Your task to perform on an android device: Go to display settings Image 0: 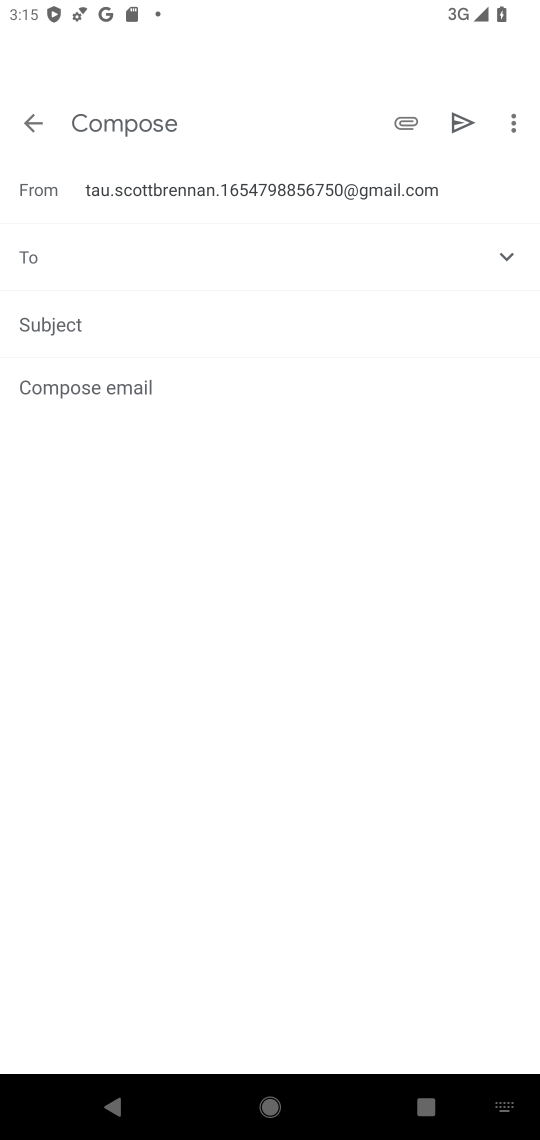
Step 0: press home button
Your task to perform on an android device: Go to display settings Image 1: 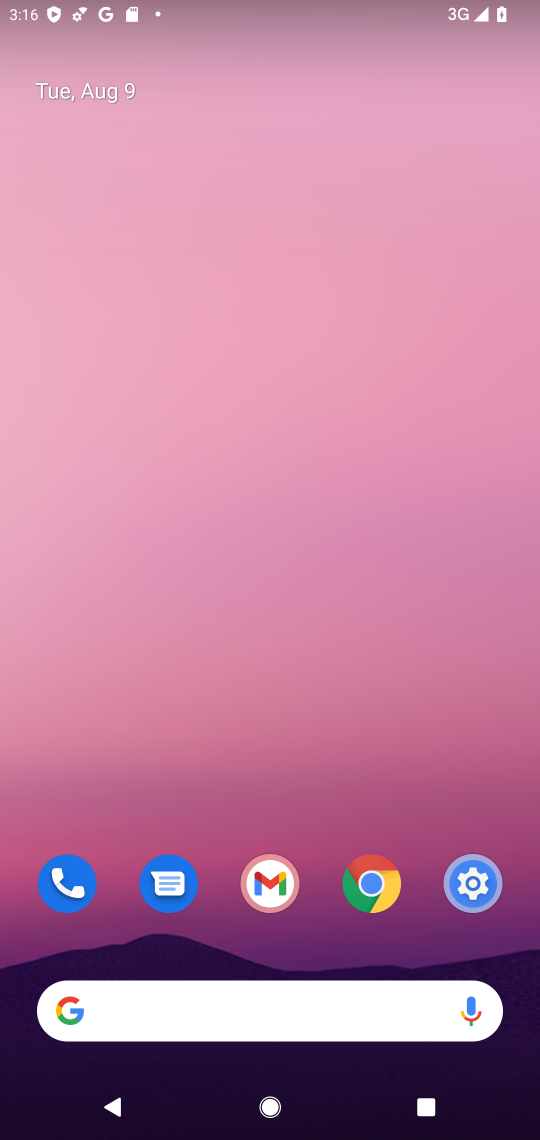
Step 1: click (470, 883)
Your task to perform on an android device: Go to display settings Image 2: 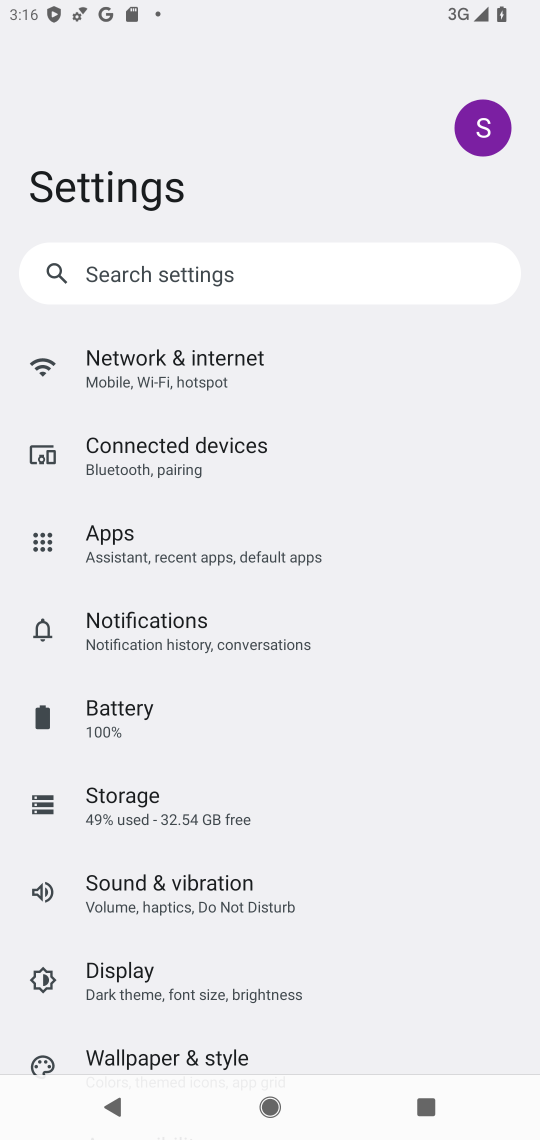
Step 2: drag from (363, 949) to (360, 516)
Your task to perform on an android device: Go to display settings Image 3: 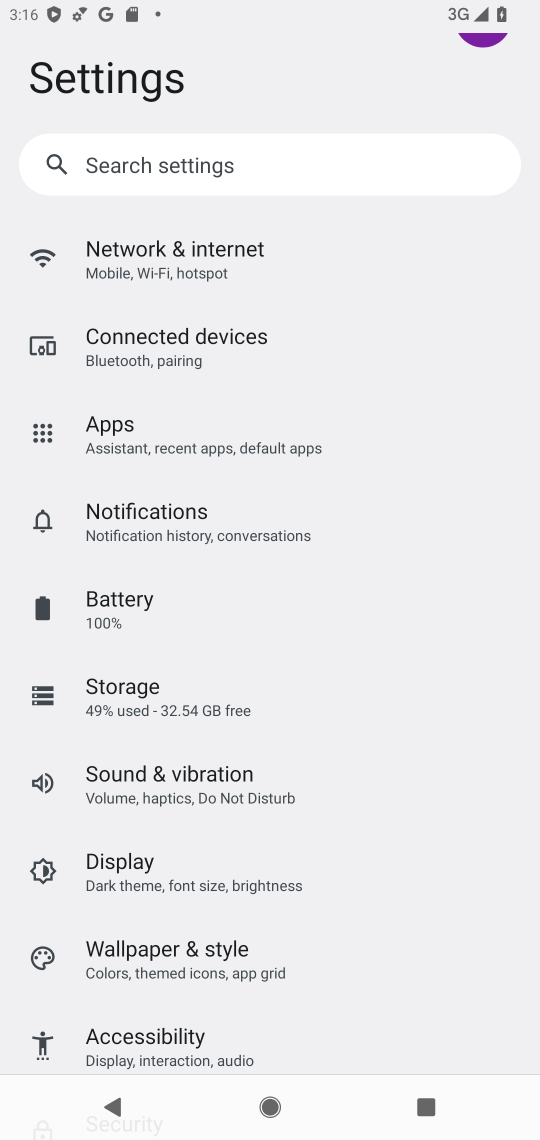
Step 3: click (115, 864)
Your task to perform on an android device: Go to display settings Image 4: 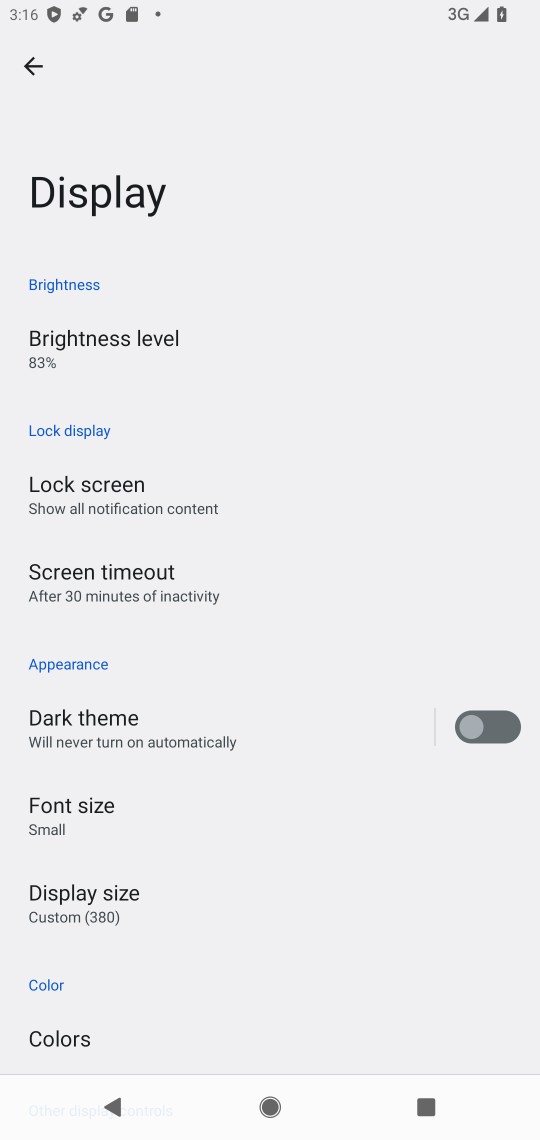
Step 4: task complete